Your task to perform on an android device: turn off wifi Image 0: 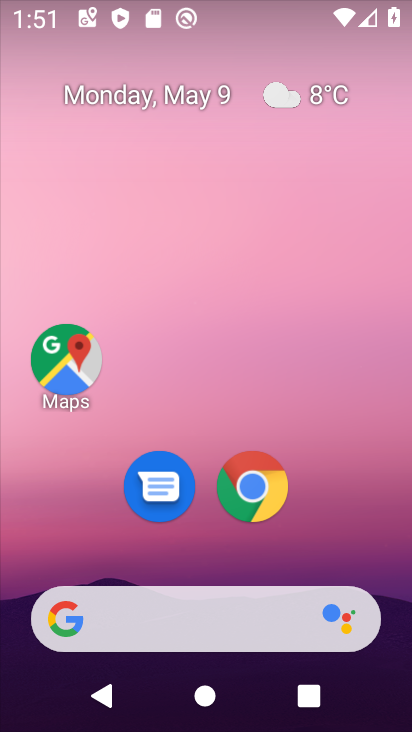
Step 0: drag from (194, 0) to (186, 632)
Your task to perform on an android device: turn off wifi Image 1: 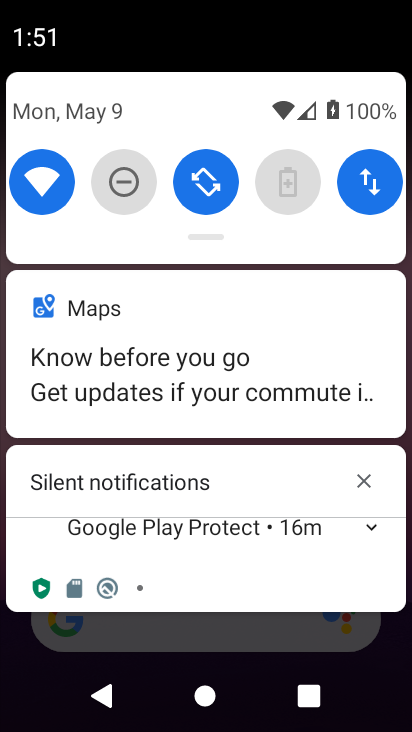
Step 1: click (39, 187)
Your task to perform on an android device: turn off wifi Image 2: 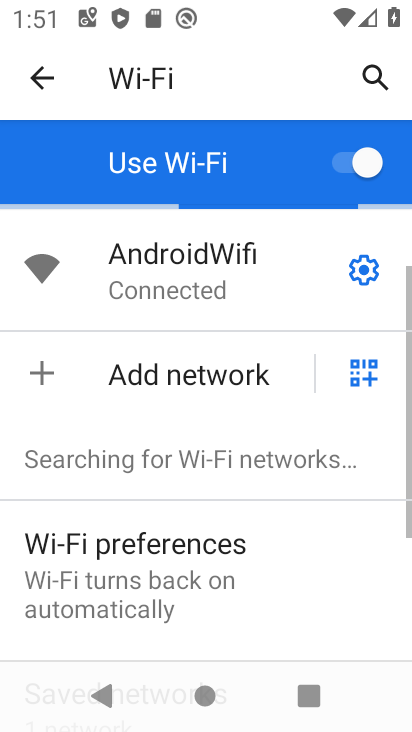
Step 2: click (377, 162)
Your task to perform on an android device: turn off wifi Image 3: 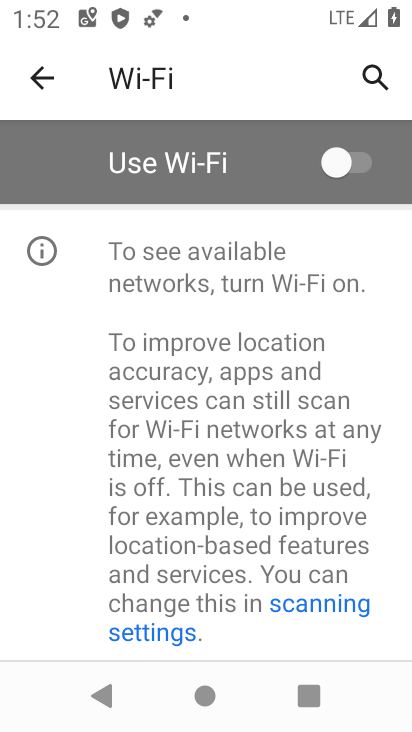
Step 3: task complete